Your task to perform on an android device: What is the news today? Image 0: 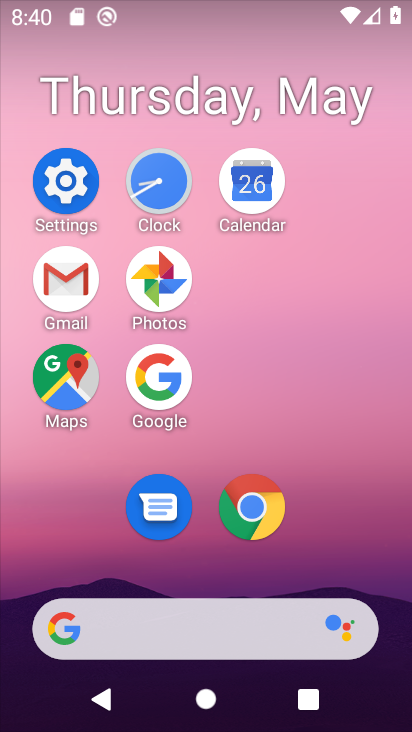
Step 0: click (158, 370)
Your task to perform on an android device: What is the news today? Image 1: 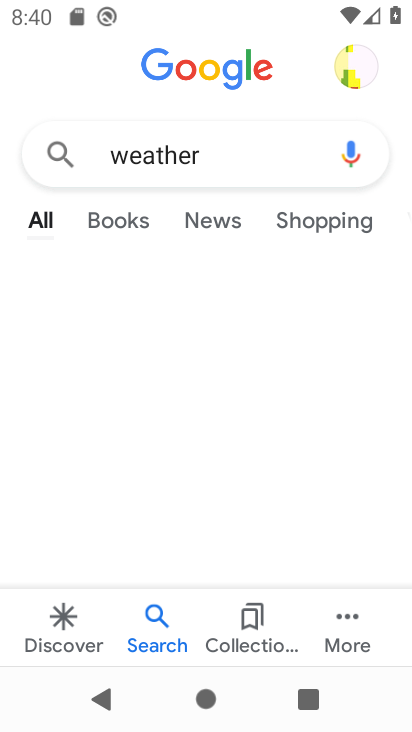
Step 1: click (235, 160)
Your task to perform on an android device: What is the news today? Image 2: 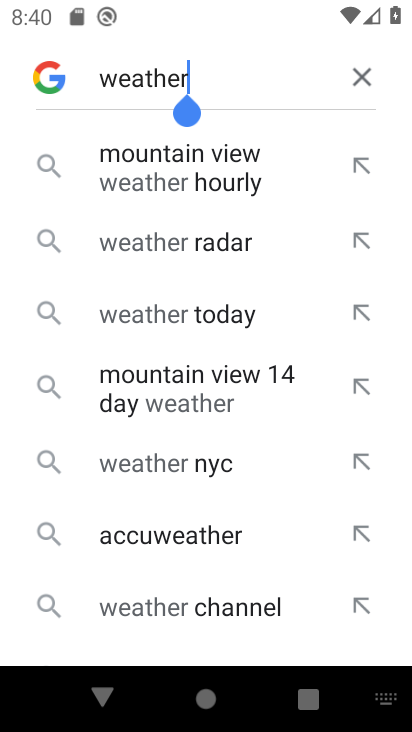
Step 2: click (364, 73)
Your task to perform on an android device: What is the news today? Image 3: 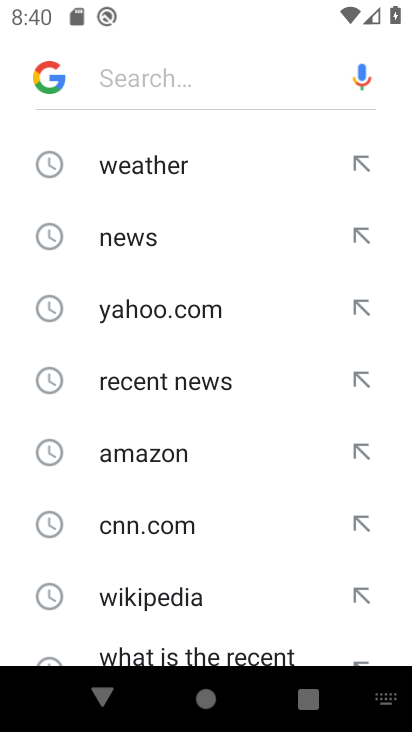
Step 3: click (127, 251)
Your task to perform on an android device: What is the news today? Image 4: 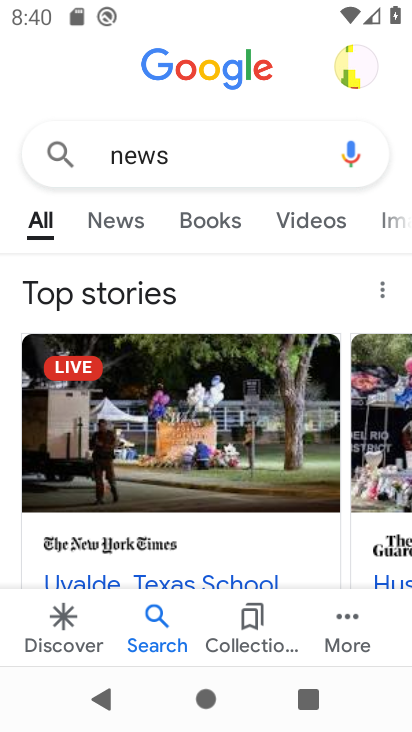
Step 4: task complete